Your task to perform on an android device: visit the assistant section in the google photos Image 0: 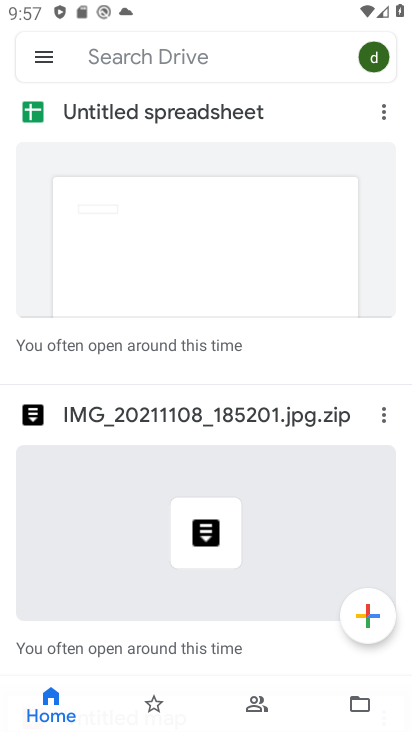
Step 0: press home button
Your task to perform on an android device: visit the assistant section in the google photos Image 1: 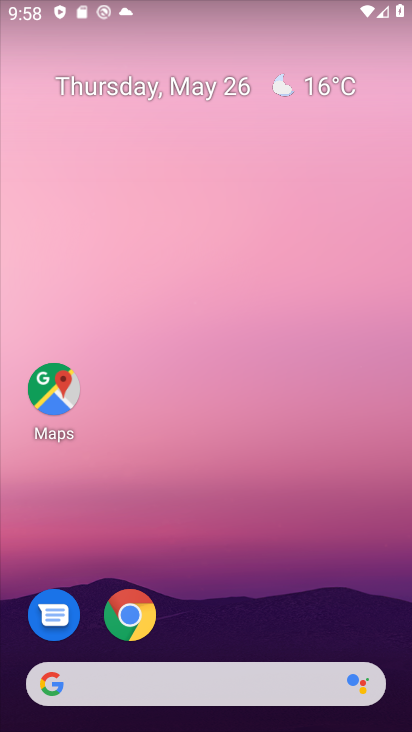
Step 1: drag from (275, 699) to (306, 238)
Your task to perform on an android device: visit the assistant section in the google photos Image 2: 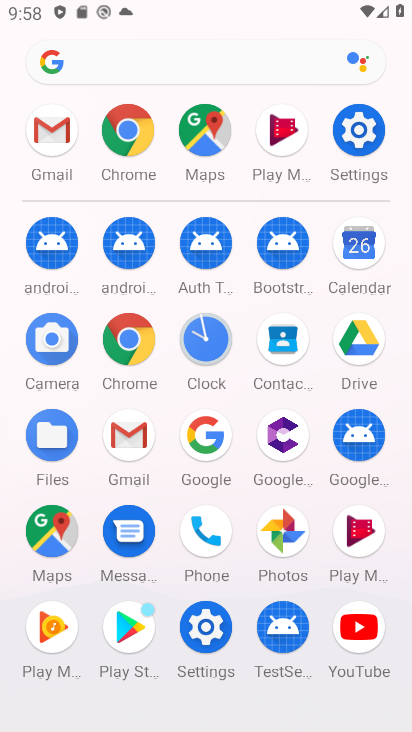
Step 2: click (295, 530)
Your task to perform on an android device: visit the assistant section in the google photos Image 3: 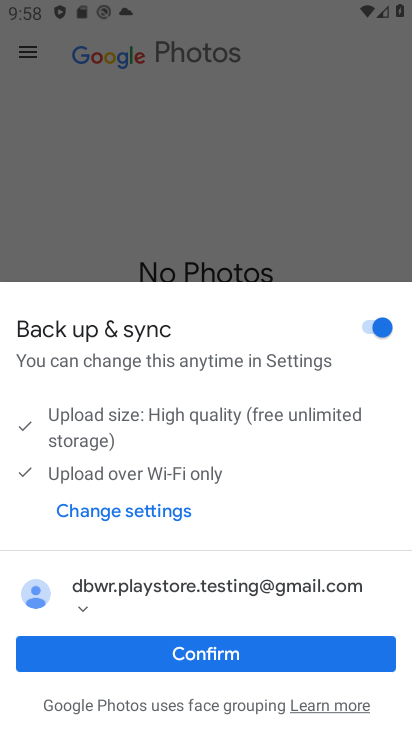
Step 3: click (177, 644)
Your task to perform on an android device: visit the assistant section in the google photos Image 4: 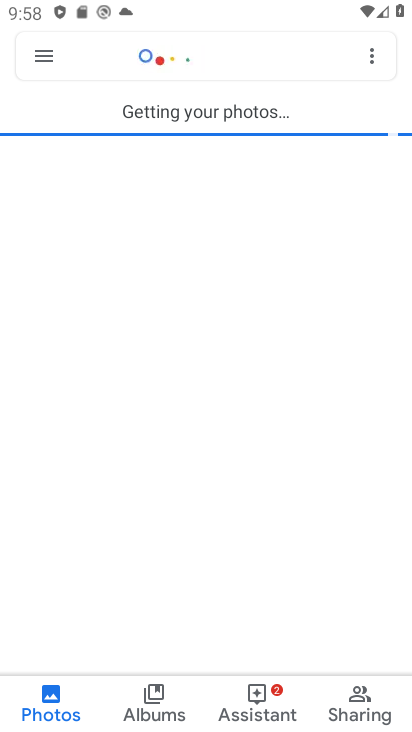
Step 4: click (261, 706)
Your task to perform on an android device: visit the assistant section in the google photos Image 5: 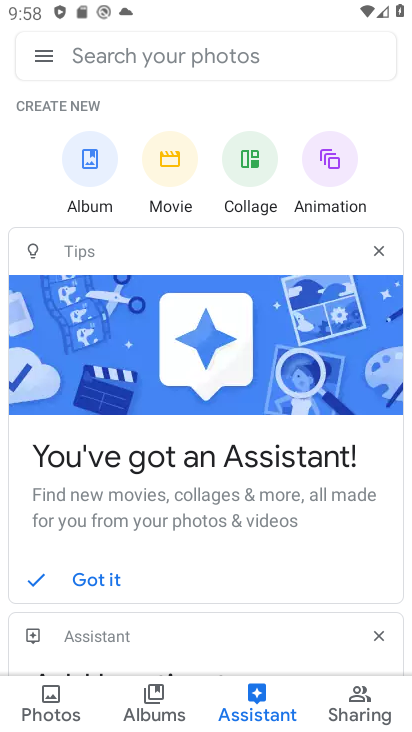
Step 5: task complete